Your task to perform on an android device: open a bookmark in the chrome app Image 0: 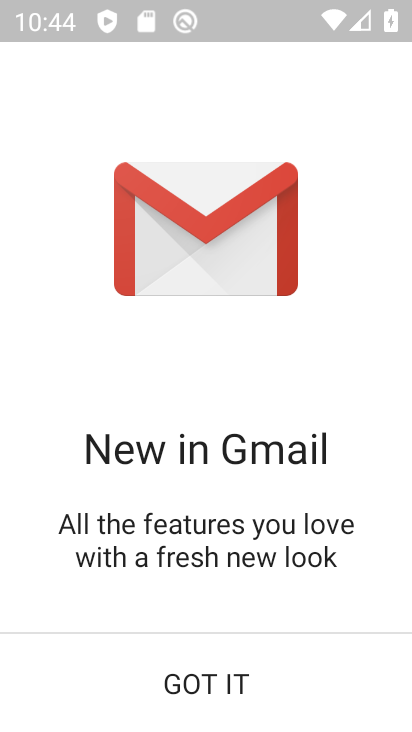
Step 0: press home button
Your task to perform on an android device: open a bookmark in the chrome app Image 1: 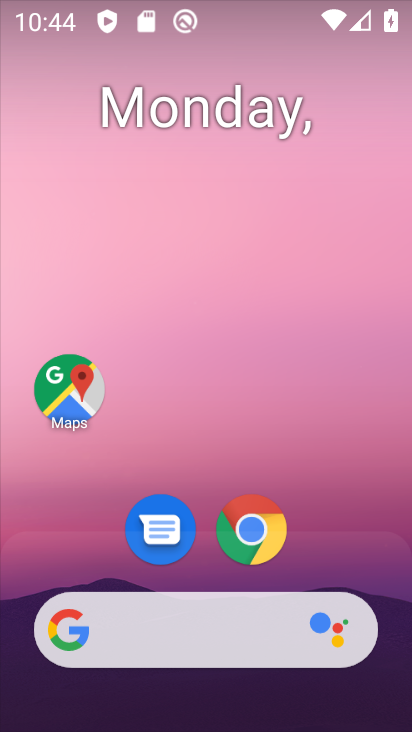
Step 1: click (252, 530)
Your task to perform on an android device: open a bookmark in the chrome app Image 2: 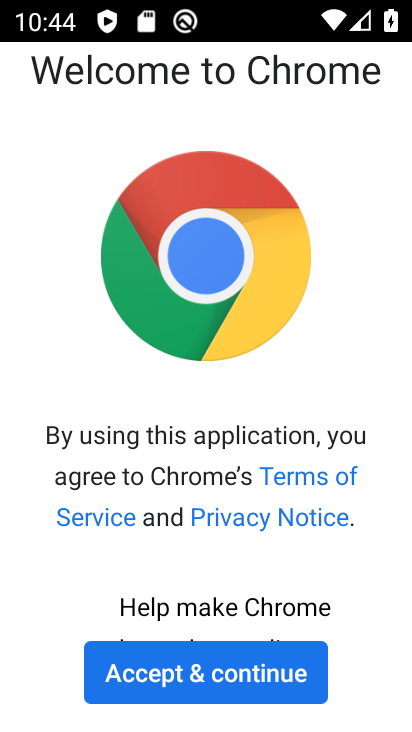
Step 2: click (176, 672)
Your task to perform on an android device: open a bookmark in the chrome app Image 3: 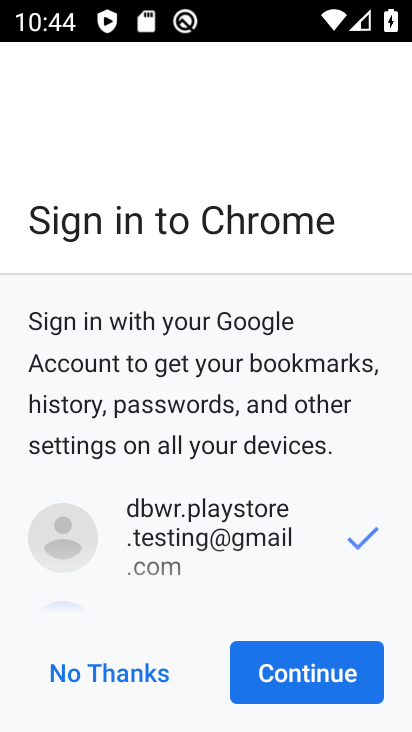
Step 3: click (293, 668)
Your task to perform on an android device: open a bookmark in the chrome app Image 4: 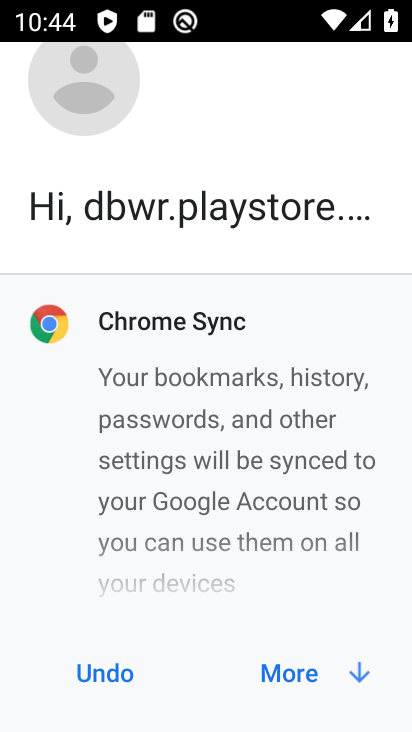
Step 4: click (293, 668)
Your task to perform on an android device: open a bookmark in the chrome app Image 5: 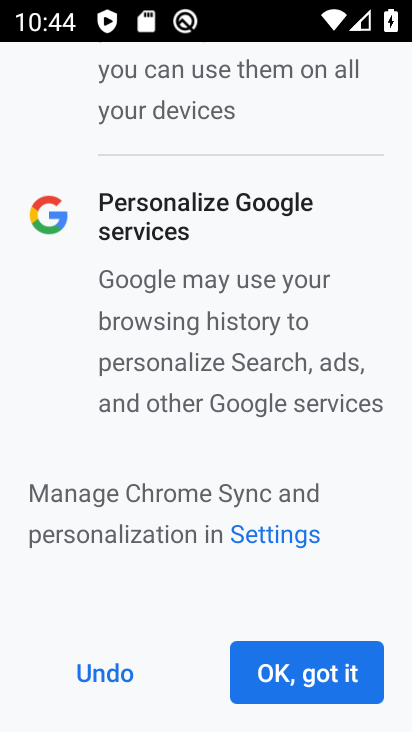
Step 5: click (293, 668)
Your task to perform on an android device: open a bookmark in the chrome app Image 6: 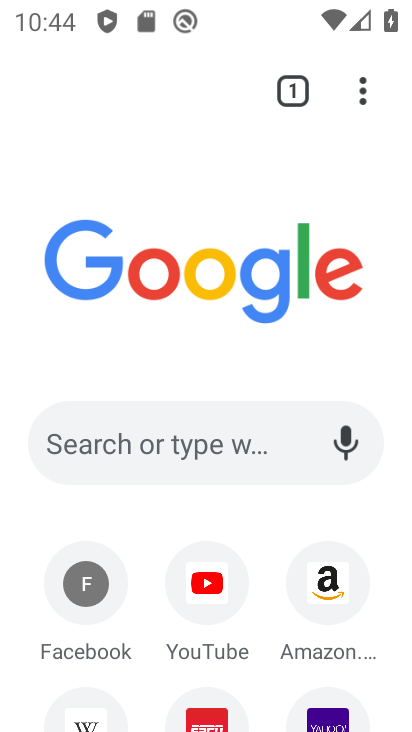
Step 6: click (365, 94)
Your task to perform on an android device: open a bookmark in the chrome app Image 7: 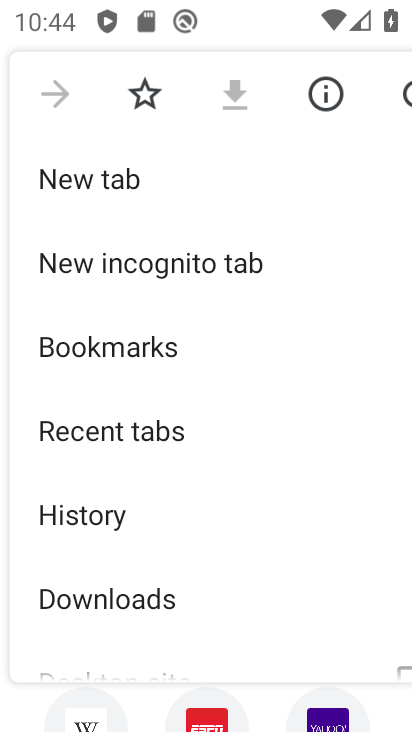
Step 7: click (145, 355)
Your task to perform on an android device: open a bookmark in the chrome app Image 8: 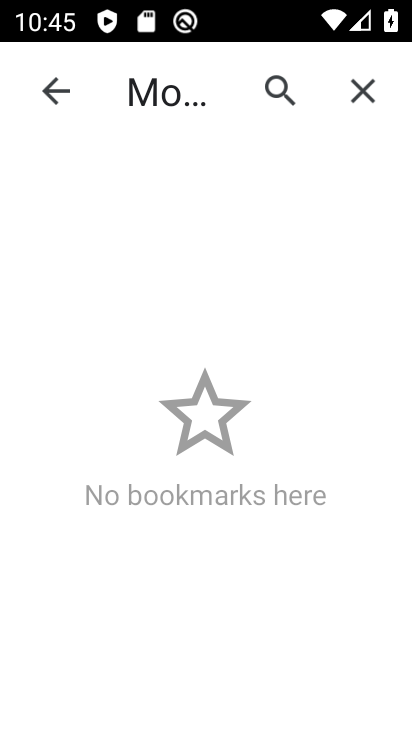
Step 8: task complete